Your task to perform on an android device: Go to Yahoo.com Image 0: 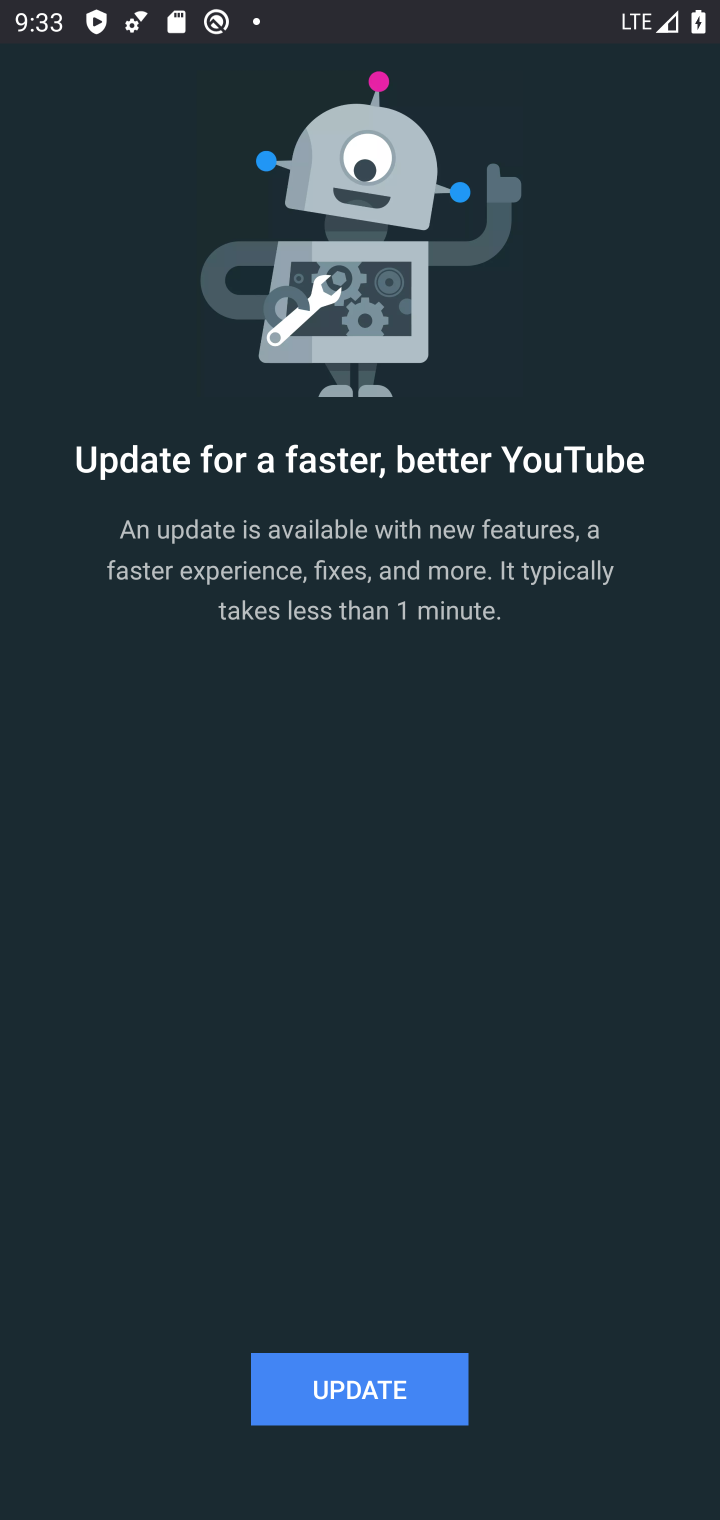
Step 0: press home button
Your task to perform on an android device: Go to Yahoo.com Image 1: 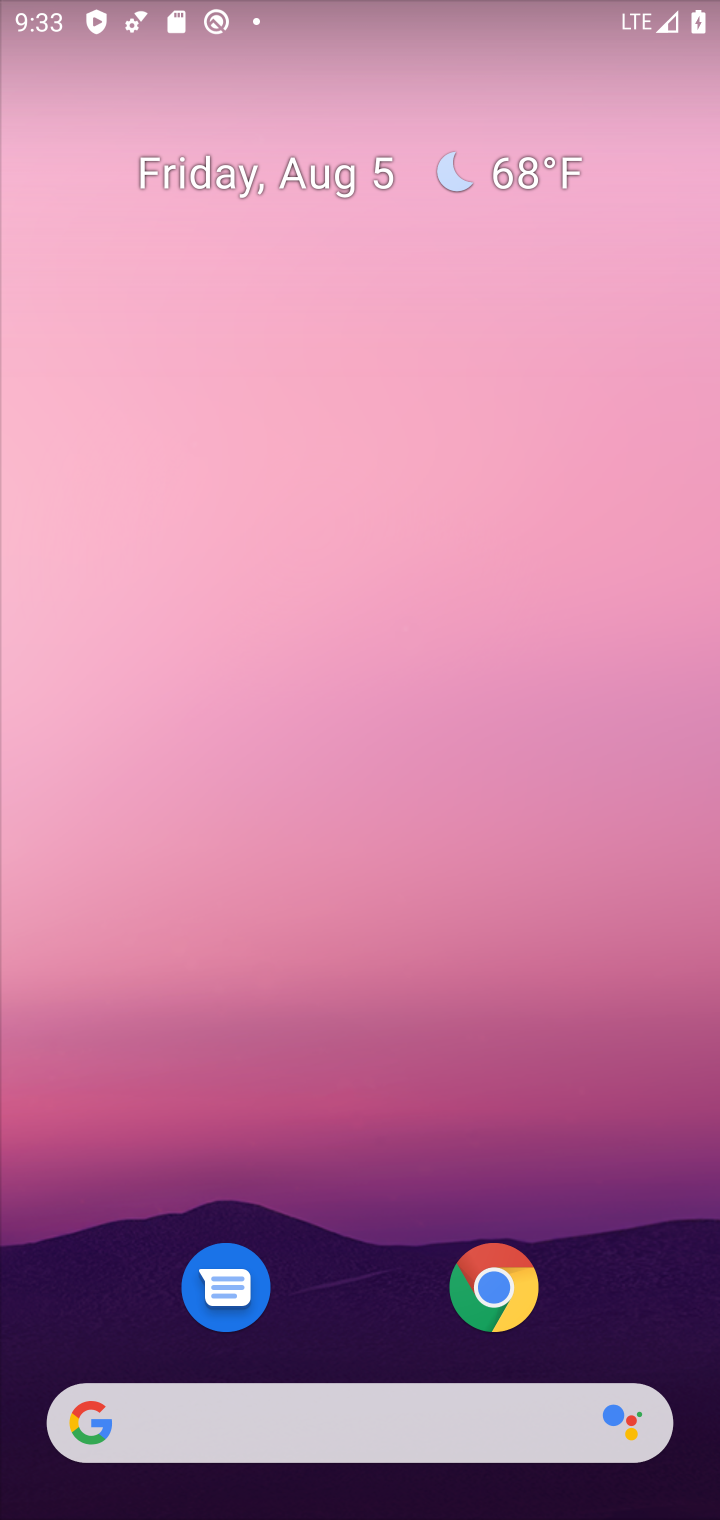
Step 1: drag from (359, 1305) to (321, 200)
Your task to perform on an android device: Go to Yahoo.com Image 2: 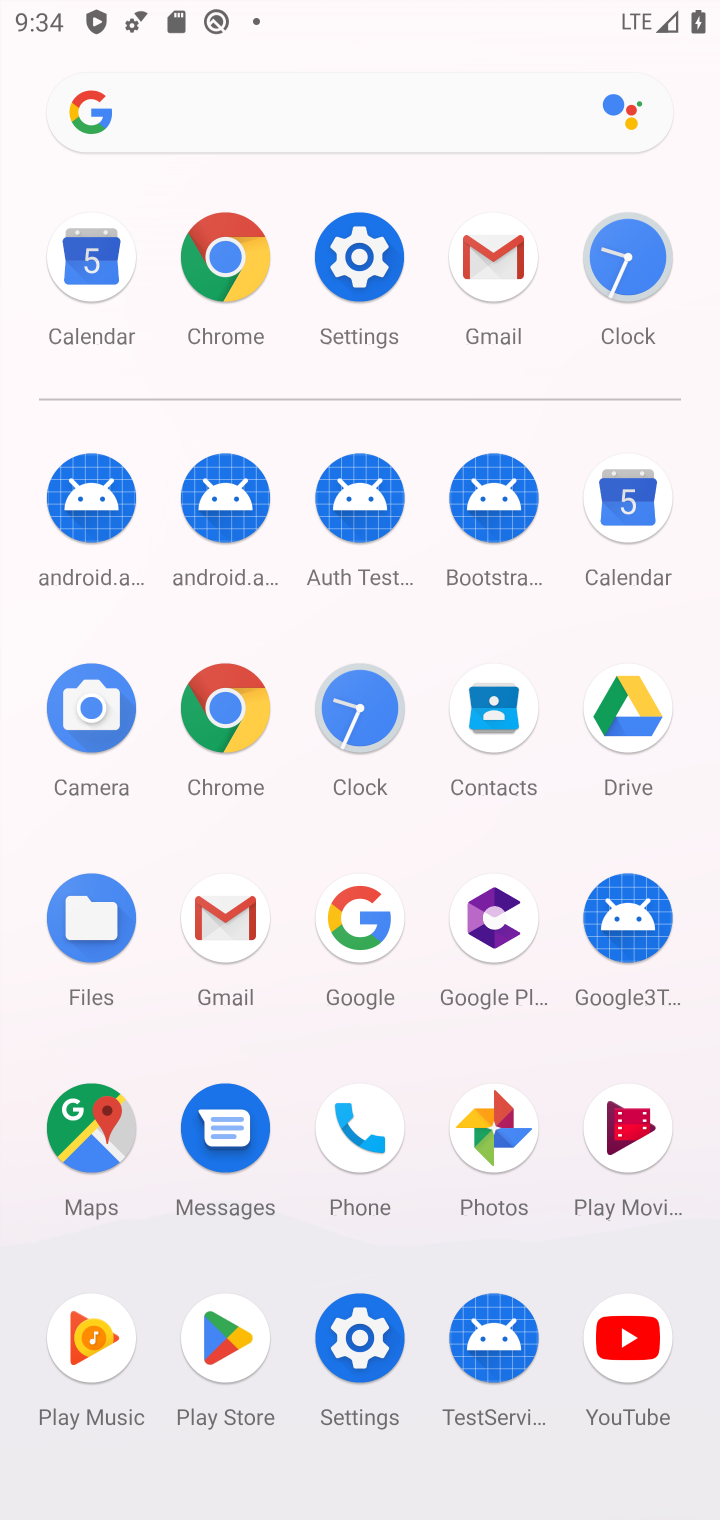
Step 2: click (226, 257)
Your task to perform on an android device: Go to Yahoo.com Image 3: 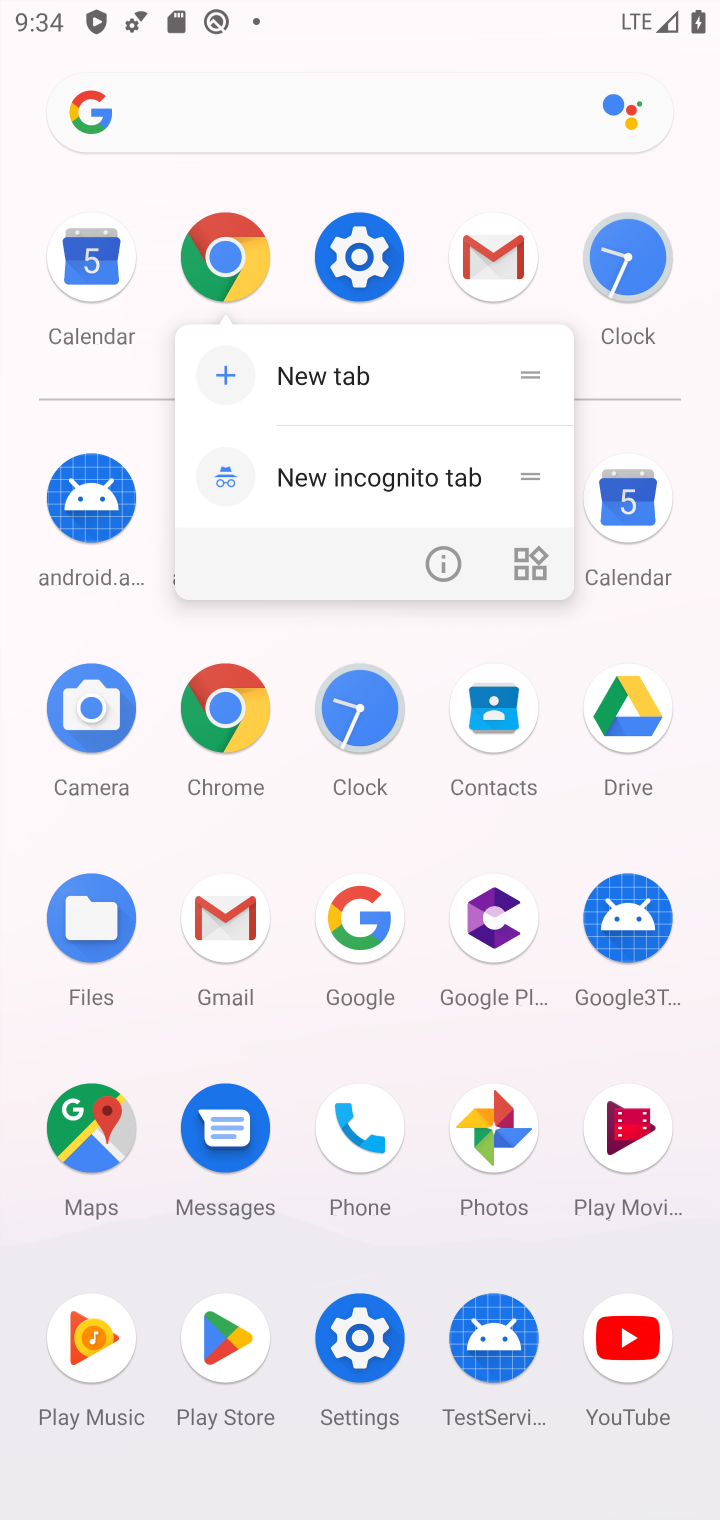
Step 3: click (226, 257)
Your task to perform on an android device: Go to Yahoo.com Image 4: 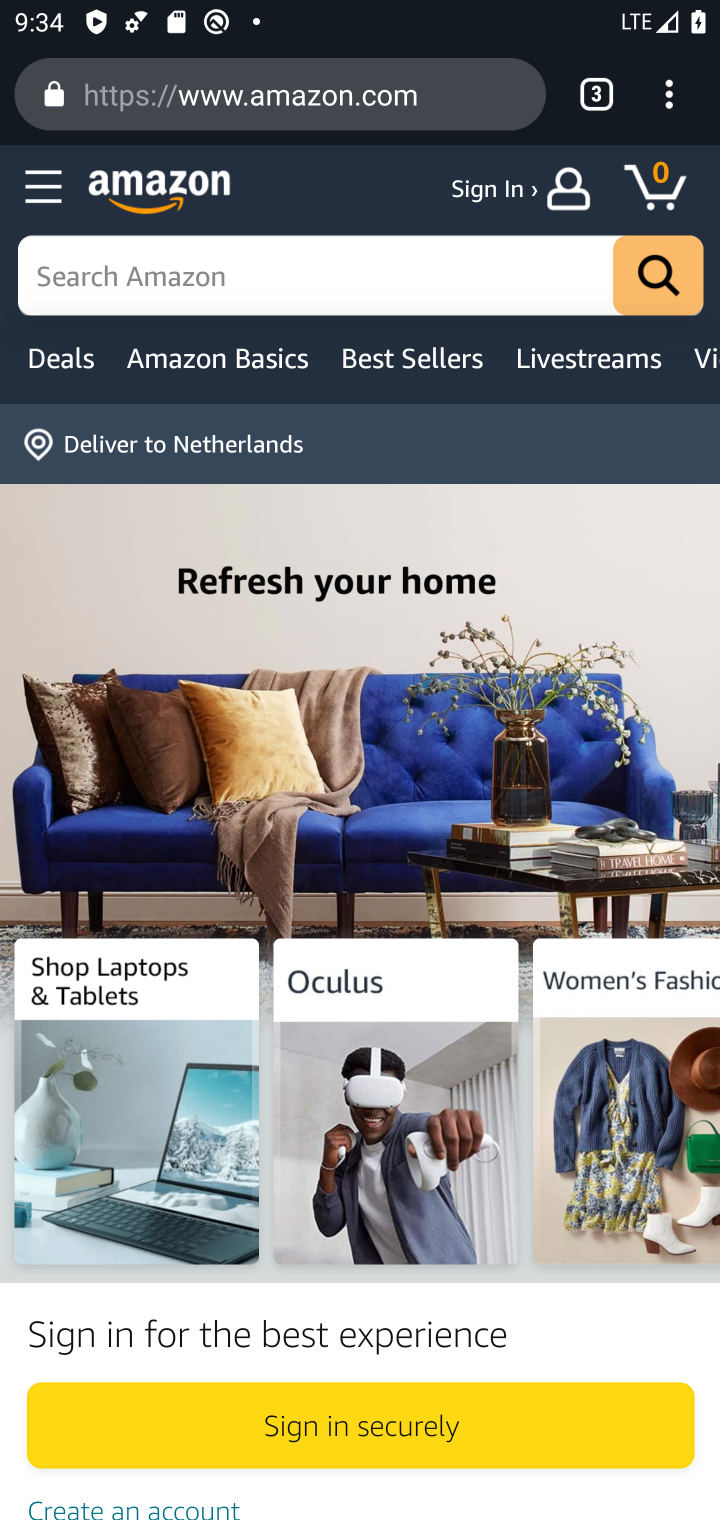
Step 4: click (668, 105)
Your task to perform on an android device: Go to Yahoo.com Image 5: 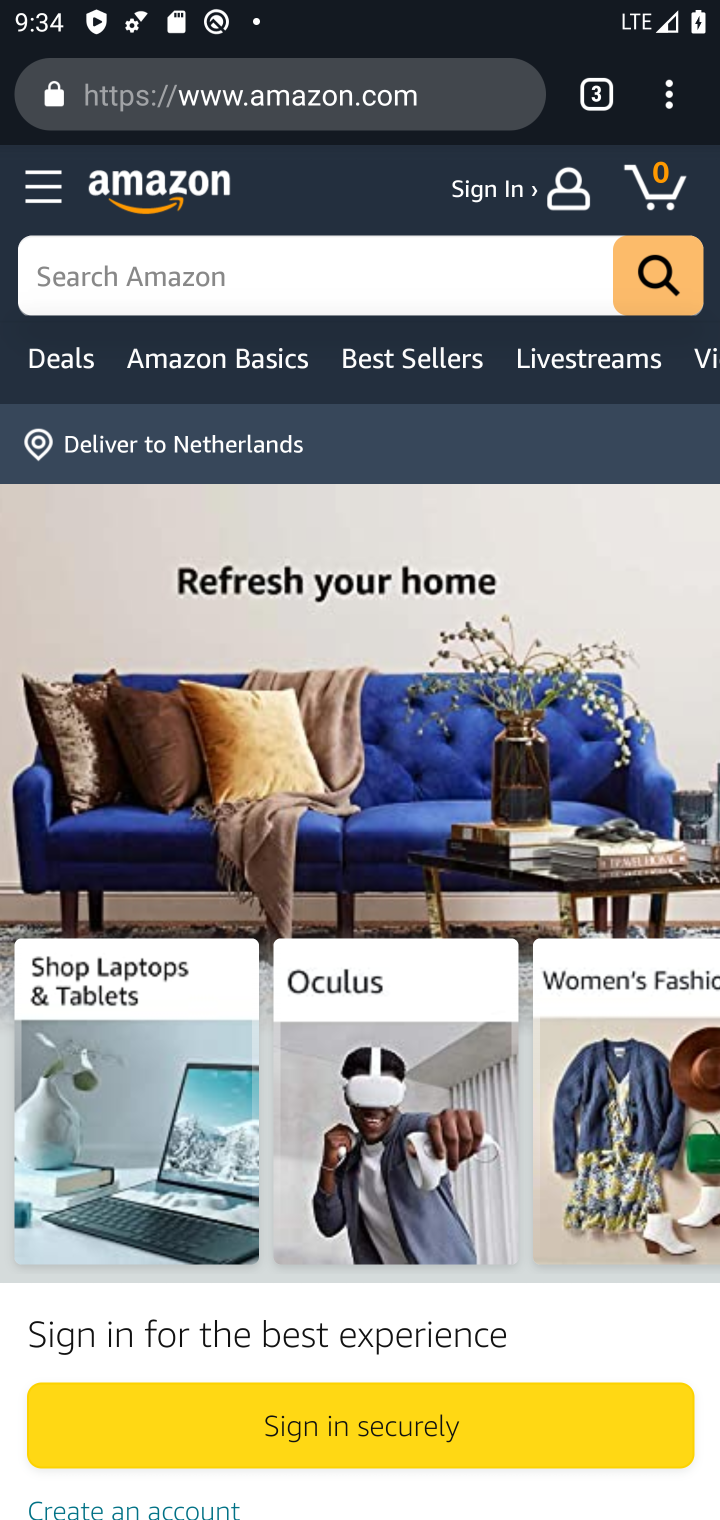
Step 5: drag from (667, 103) to (329, 199)
Your task to perform on an android device: Go to Yahoo.com Image 6: 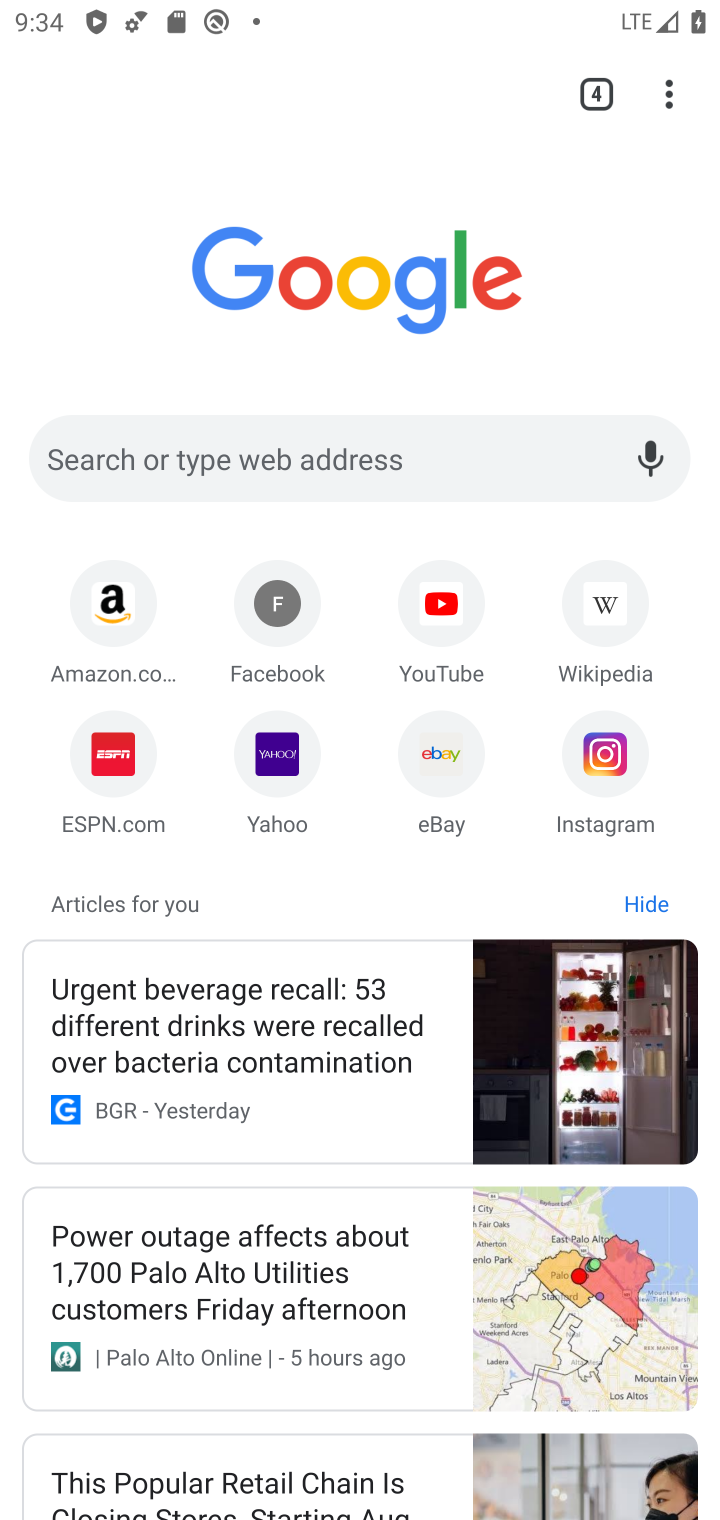
Step 6: click (266, 754)
Your task to perform on an android device: Go to Yahoo.com Image 7: 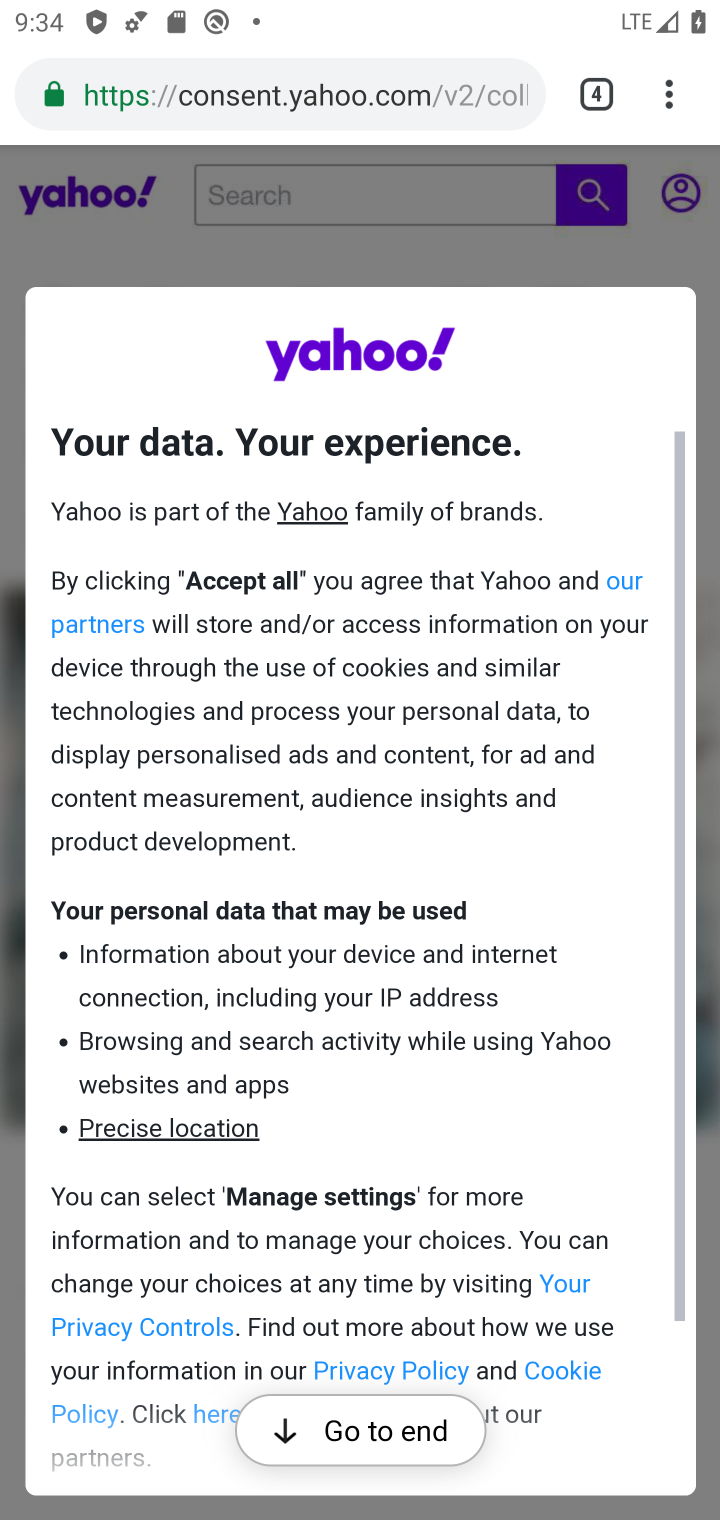
Step 7: task complete